Your task to perform on an android device: clear all cookies in the chrome app Image 0: 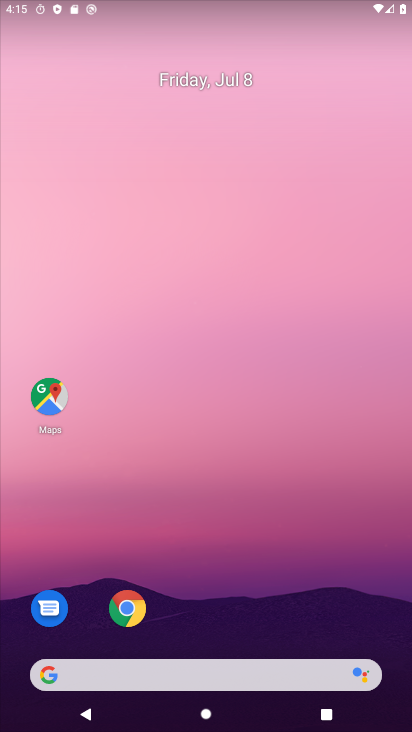
Step 0: press home button
Your task to perform on an android device: clear all cookies in the chrome app Image 1: 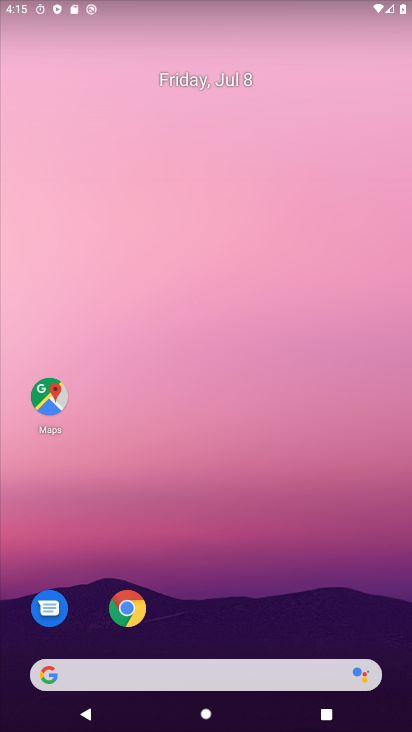
Step 1: click (127, 606)
Your task to perform on an android device: clear all cookies in the chrome app Image 2: 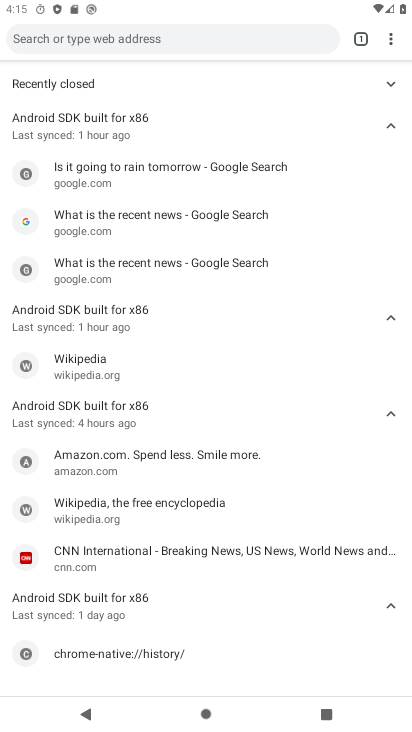
Step 2: drag from (389, 36) to (261, 329)
Your task to perform on an android device: clear all cookies in the chrome app Image 3: 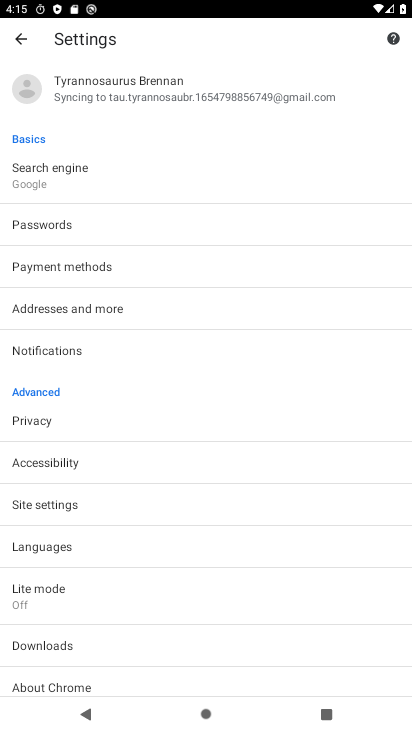
Step 3: click (32, 417)
Your task to perform on an android device: clear all cookies in the chrome app Image 4: 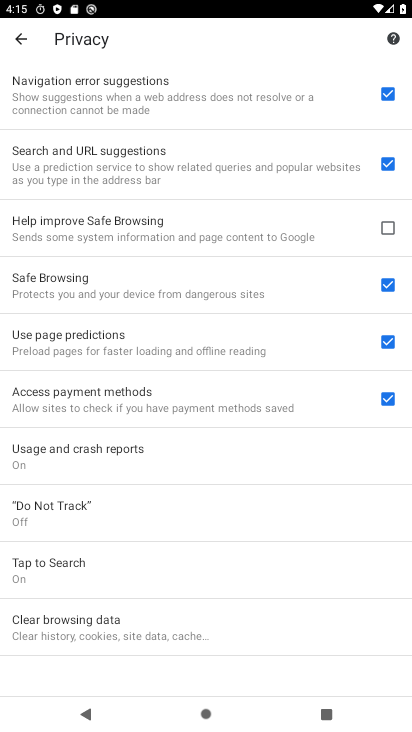
Step 4: click (96, 623)
Your task to perform on an android device: clear all cookies in the chrome app Image 5: 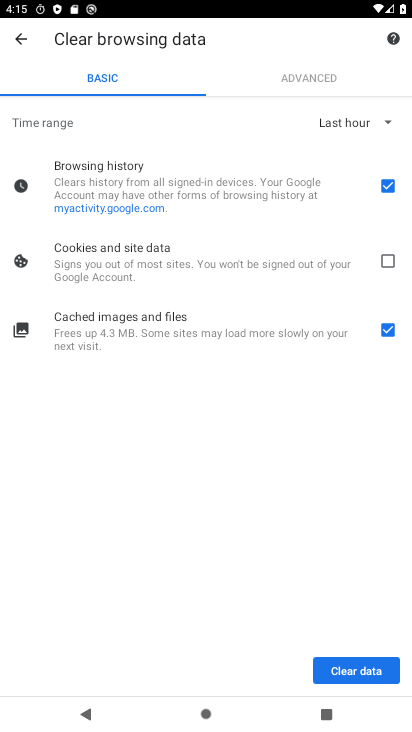
Step 5: click (392, 183)
Your task to perform on an android device: clear all cookies in the chrome app Image 6: 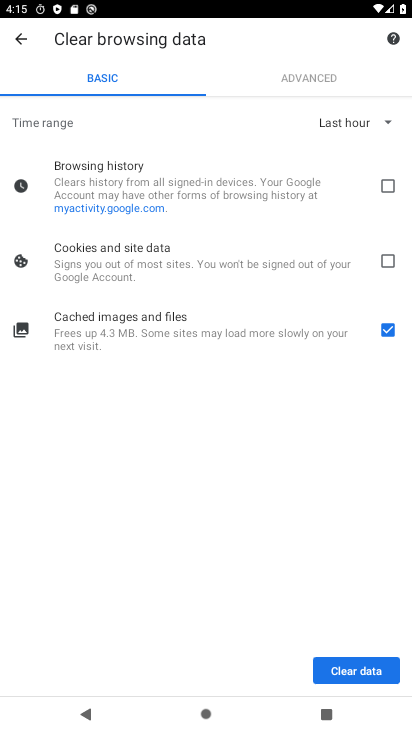
Step 6: click (385, 322)
Your task to perform on an android device: clear all cookies in the chrome app Image 7: 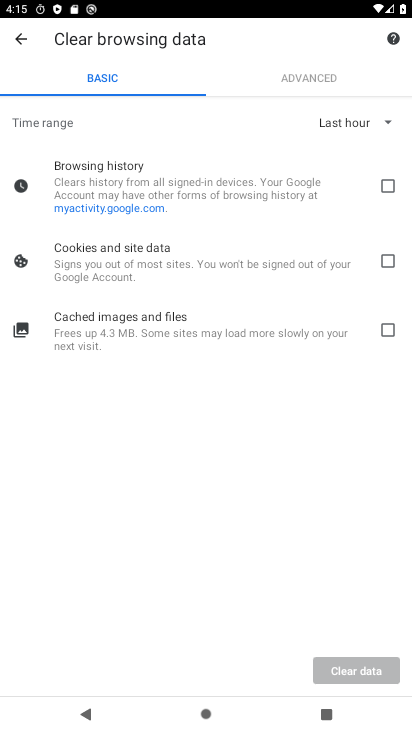
Step 7: click (391, 260)
Your task to perform on an android device: clear all cookies in the chrome app Image 8: 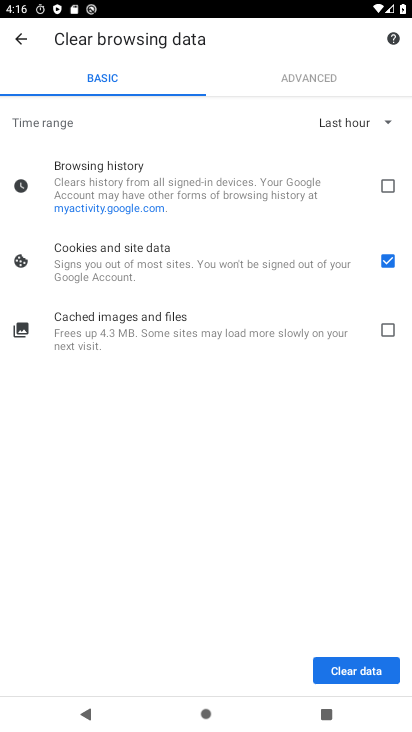
Step 8: click (338, 674)
Your task to perform on an android device: clear all cookies in the chrome app Image 9: 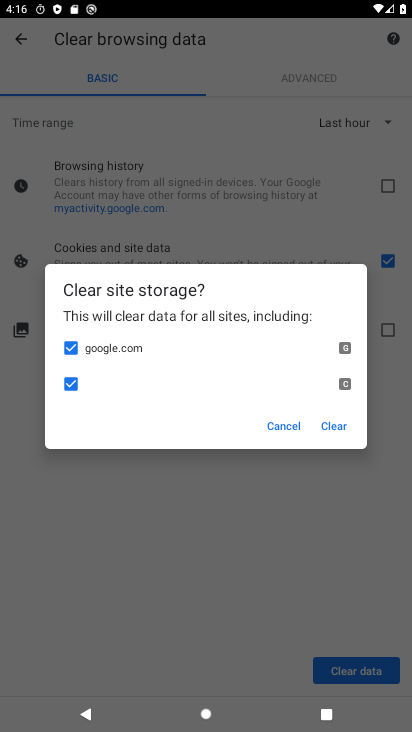
Step 9: click (330, 425)
Your task to perform on an android device: clear all cookies in the chrome app Image 10: 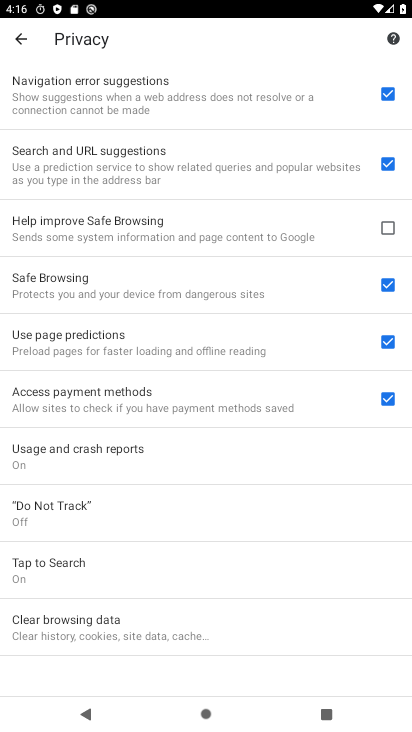
Step 10: task complete